Your task to perform on an android device: Open Youtube and go to "Your channel" Image 0: 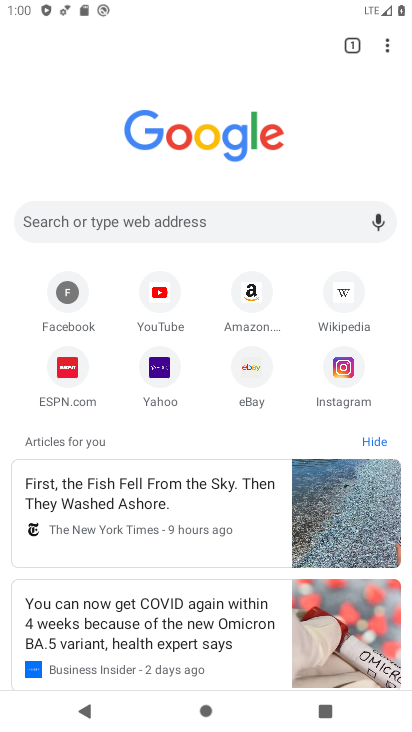
Step 0: press home button
Your task to perform on an android device: Open Youtube and go to "Your channel" Image 1: 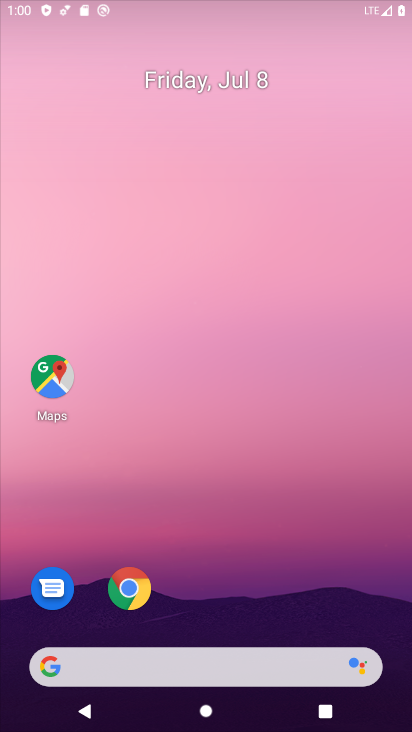
Step 1: drag from (186, 598) to (267, 21)
Your task to perform on an android device: Open Youtube and go to "Your channel" Image 2: 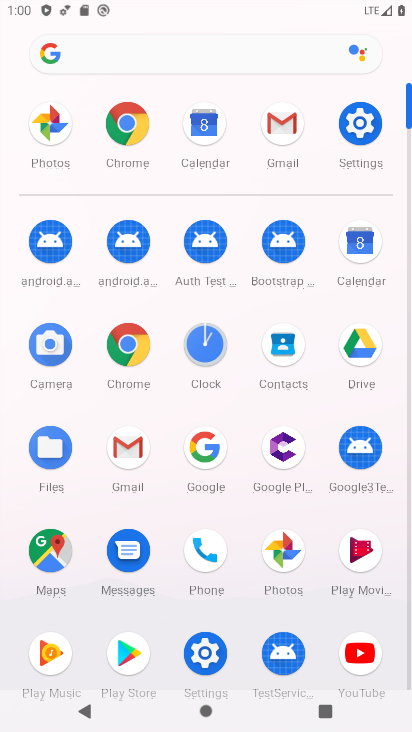
Step 2: click (354, 656)
Your task to perform on an android device: Open Youtube and go to "Your channel" Image 3: 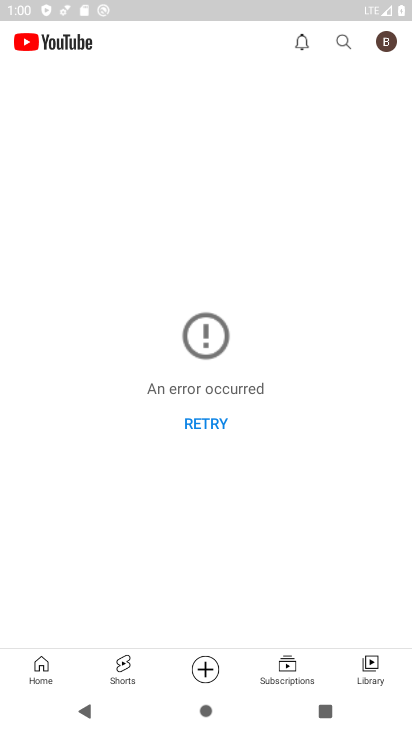
Step 3: click (383, 52)
Your task to perform on an android device: Open Youtube and go to "Your channel" Image 4: 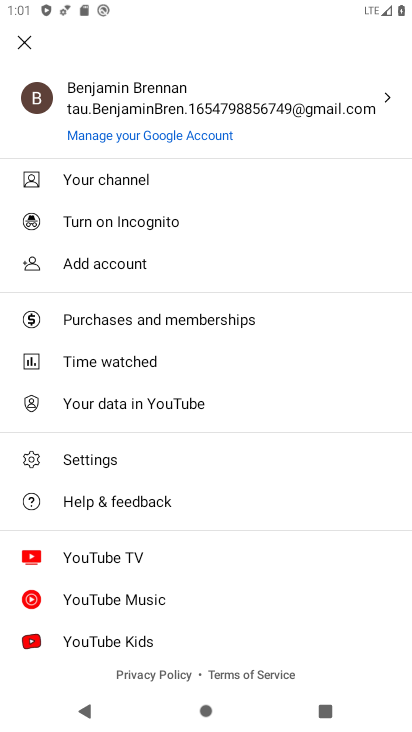
Step 4: click (126, 183)
Your task to perform on an android device: Open Youtube and go to "Your channel" Image 5: 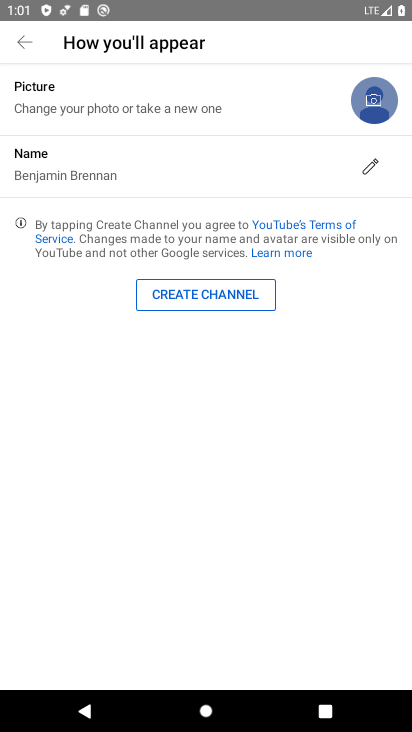
Step 5: task complete